Your task to perform on an android device: allow notifications from all sites in the chrome app Image 0: 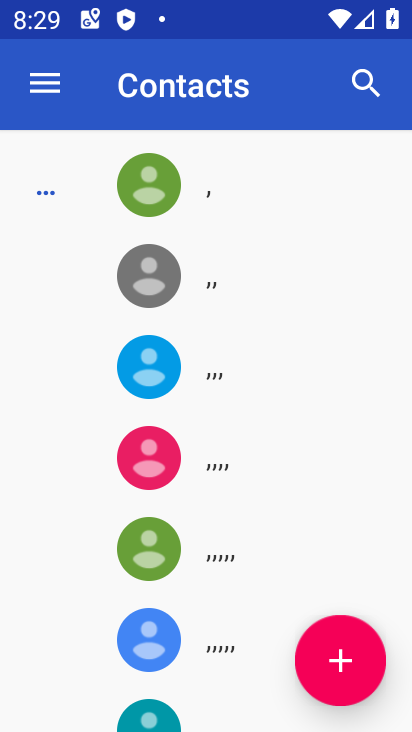
Step 0: press home button
Your task to perform on an android device: allow notifications from all sites in the chrome app Image 1: 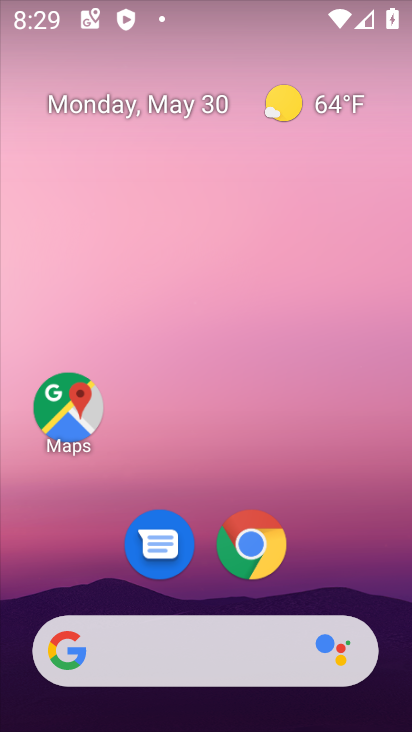
Step 1: drag from (185, 609) to (58, 51)
Your task to perform on an android device: allow notifications from all sites in the chrome app Image 2: 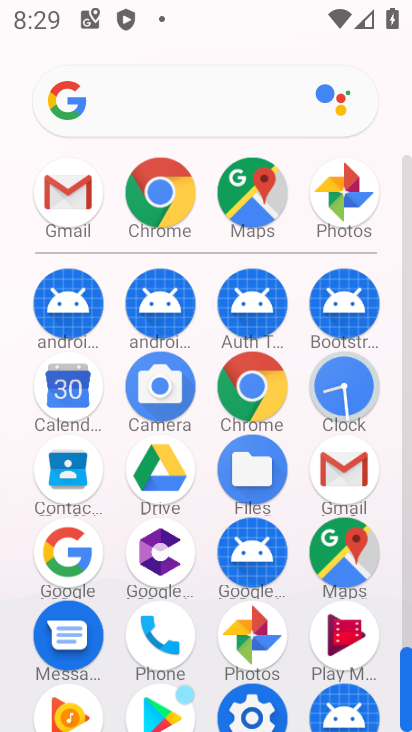
Step 2: click (251, 400)
Your task to perform on an android device: allow notifications from all sites in the chrome app Image 3: 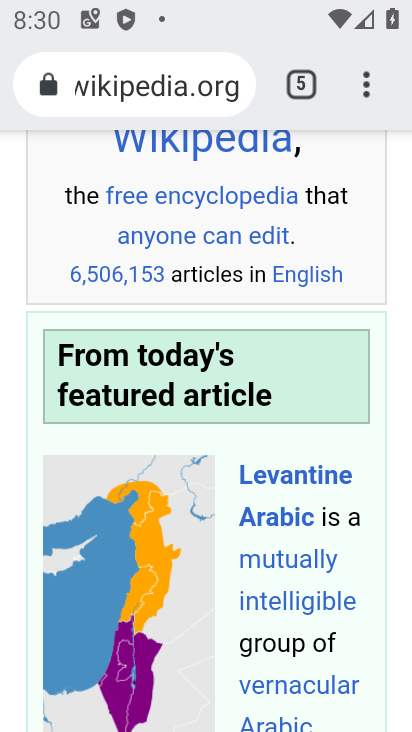
Step 3: drag from (369, 84) to (82, 613)
Your task to perform on an android device: allow notifications from all sites in the chrome app Image 4: 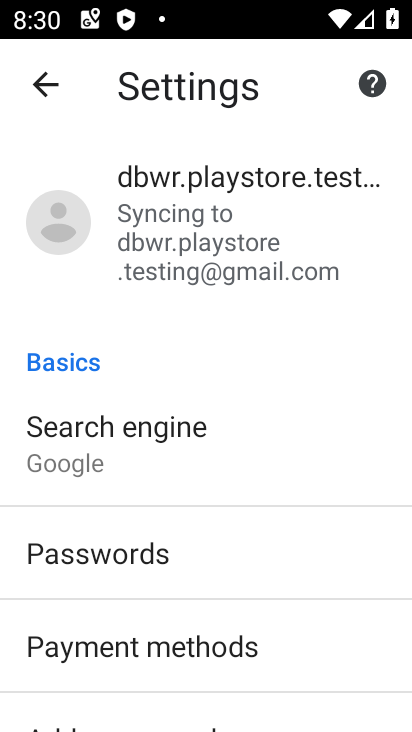
Step 4: drag from (188, 608) to (396, 230)
Your task to perform on an android device: allow notifications from all sites in the chrome app Image 5: 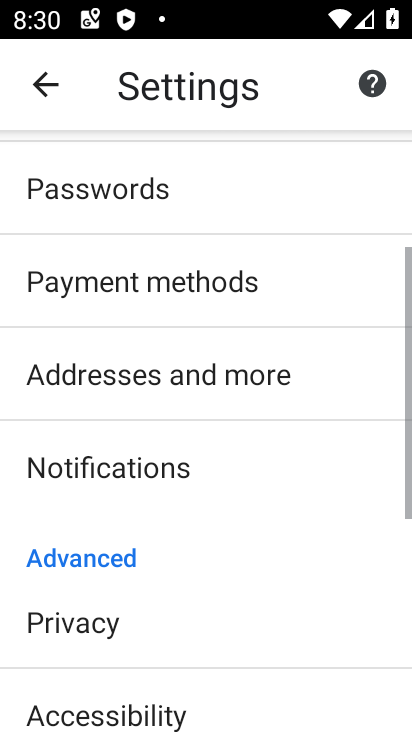
Step 5: drag from (235, 625) to (193, 56)
Your task to perform on an android device: allow notifications from all sites in the chrome app Image 6: 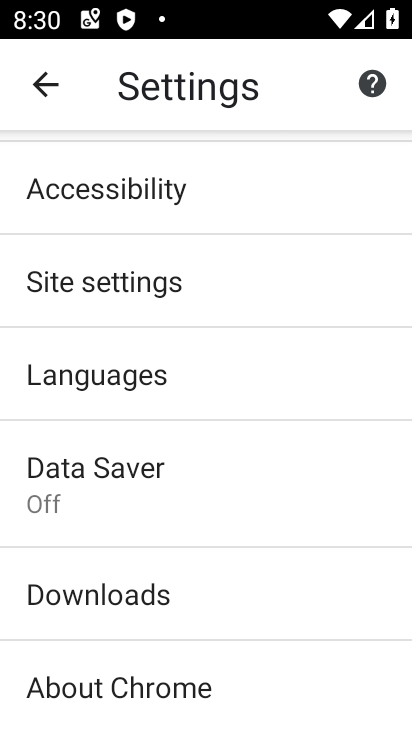
Step 6: click (94, 302)
Your task to perform on an android device: allow notifications from all sites in the chrome app Image 7: 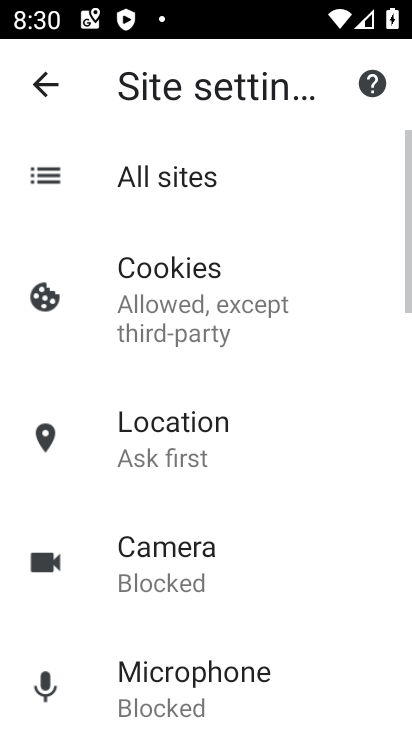
Step 7: drag from (199, 674) to (186, 180)
Your task to perform on an android device: allow notifications from all sites in the chrome app Image 8: 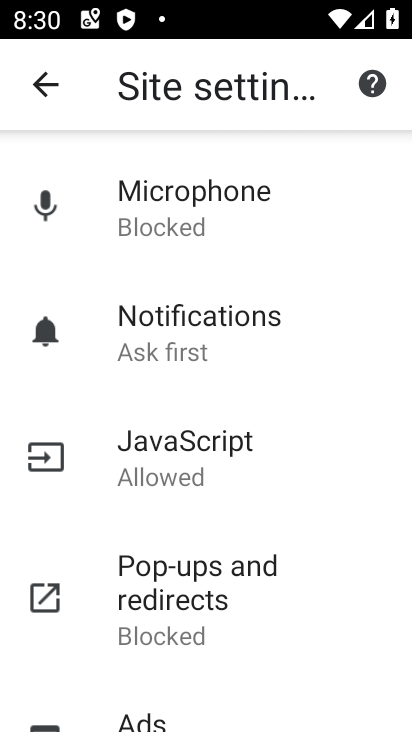
Step 8: click (180, 344)
Your task to perform on an android device: allow notifications from all sites in the chrome app Image 9: 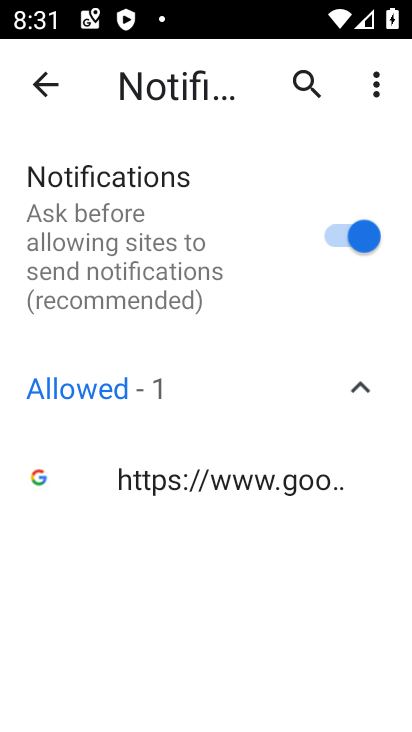
Step 9: task complete